Your task to perform on an android device: See recent photos Image 0: 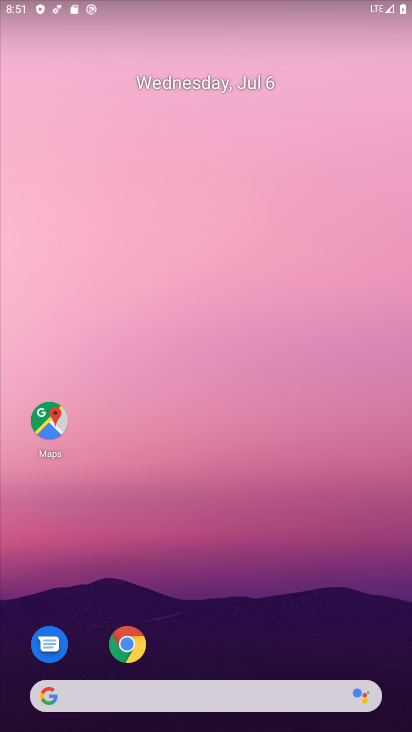
Step 0: drag from (192, 639) to (223, 116)
Your task to perform on an android device: See recent photos Image 1: 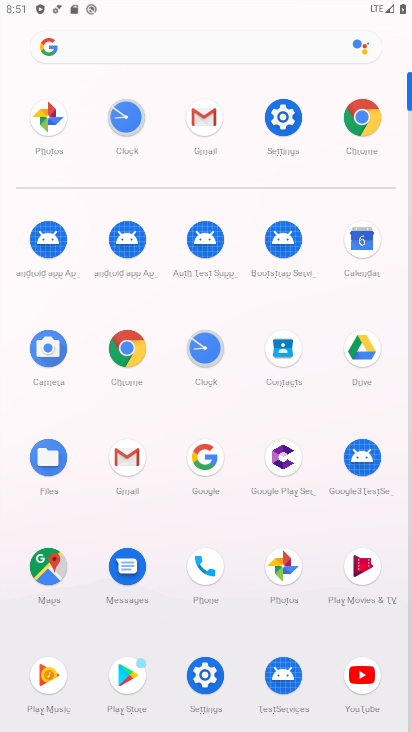
Step 1: click (65, 132)
Your task to perform on an android device: See recent photos Image 2: 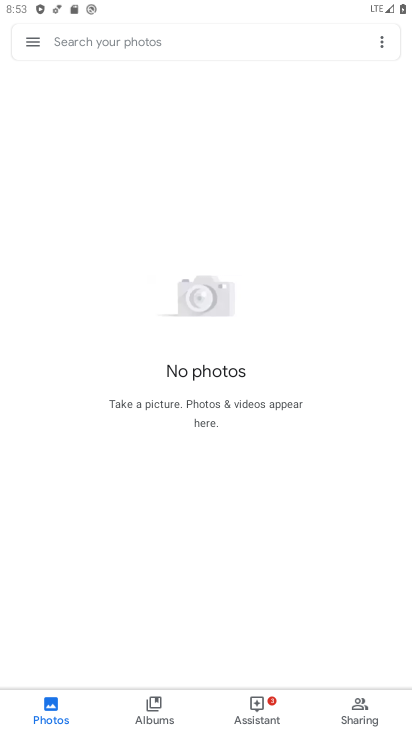
Step 2: task complete